Your task to perform on an android device: What's the weather today? Image 0: 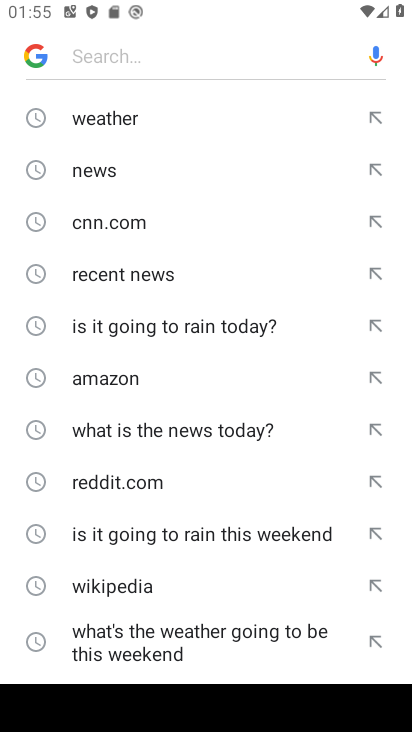
Step 0: press home button
Your task to perform on an android device: What's the weather today? Image 1: 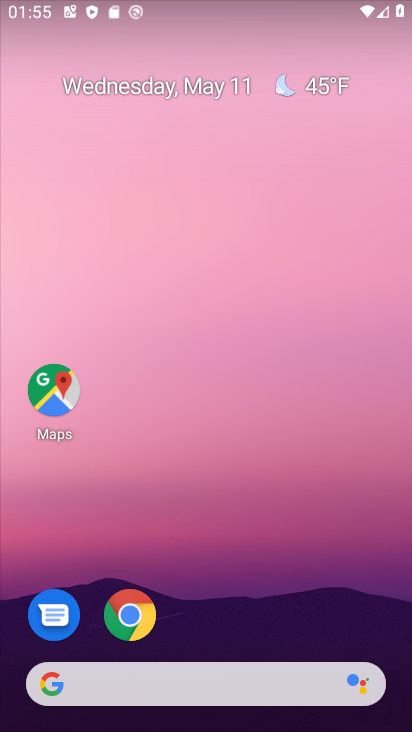
Step 1: drag from (364, 500) to (363, 169)
Your task to perform on an android device: What's the weather today? Image 2: 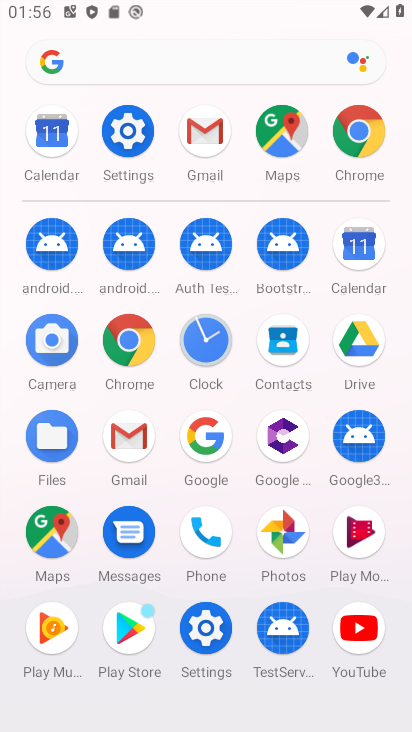
Step 2: click (121, 356)
Your task to perform on an android device: What's the weather today? Image 3: 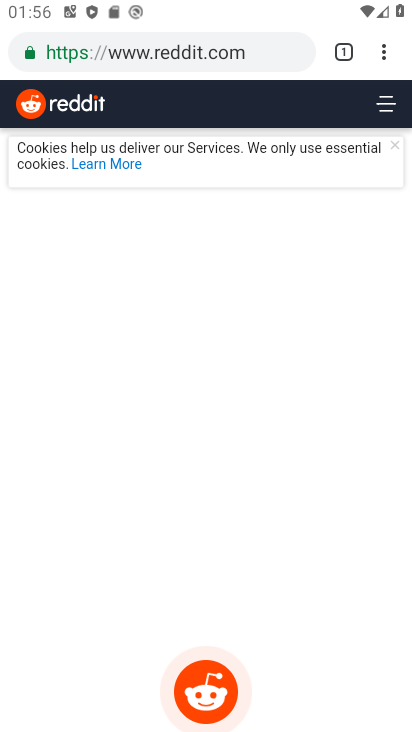
Step 3: click (180, 41)
Your task to perform on an android device: What's the weather today? Image 4: 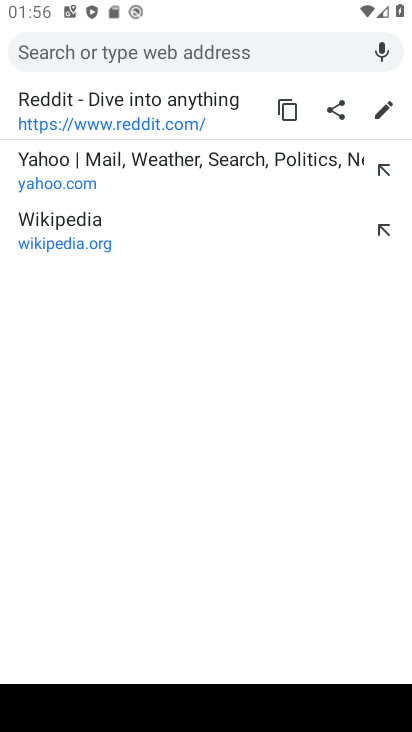
Step 4: type "what's the weather today"
Your task to perform on an android device: What's the weather today? Image 5: 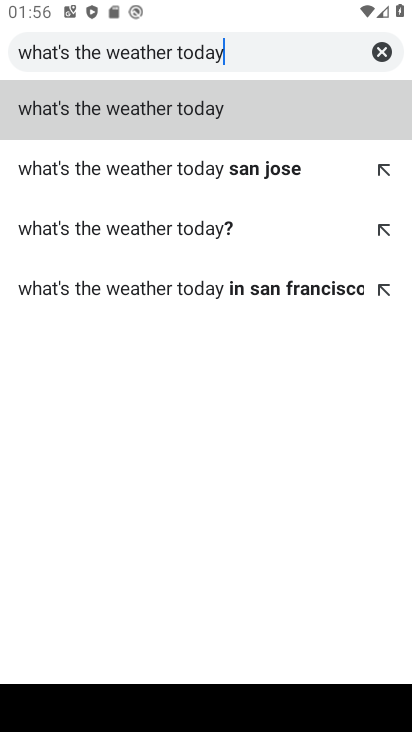
Step 5: click (145, 117)
Your task to perform on an android device: What's the weather today? Image 6: 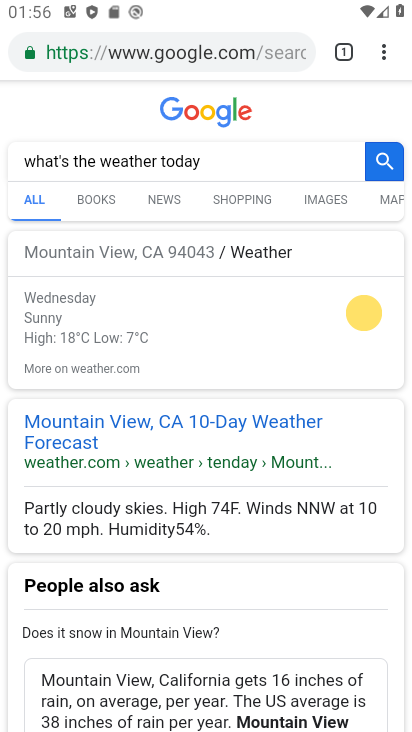
Step 6: task complete